Your task to perform on an android device: turn smart compose on in the gmail app Image 0: 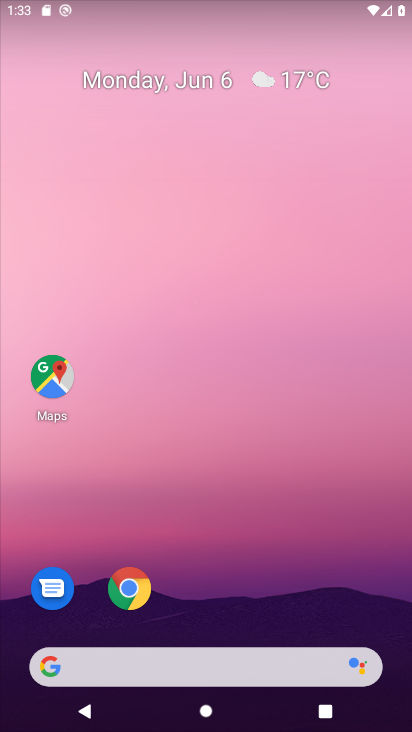
Step 0: drag from (223, 574) to (304, 3)
Your task to perform on an android device: turn smart compose on in the gmail app Image 1: 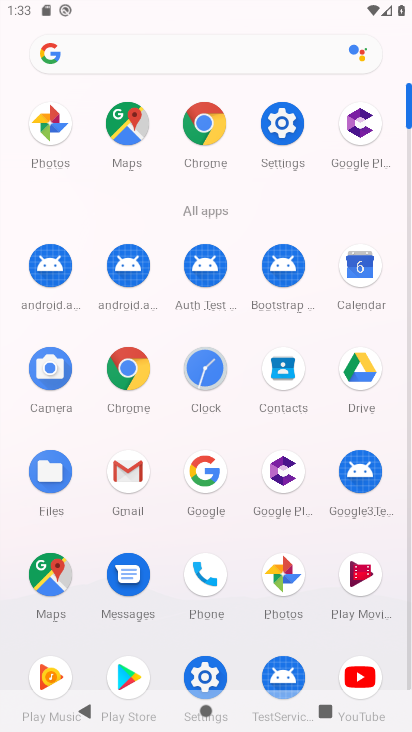
Step 1: click (127, 481)
Your task to perform on an android device: turn smart compose on in the gmail app Image 2: 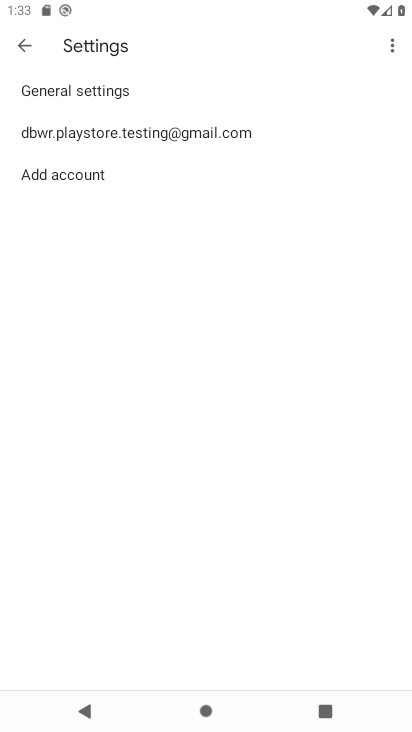
Step 2: click (170, 140)
Your task to perform on an android device: turn smart compose on in the gmail app Image 3: 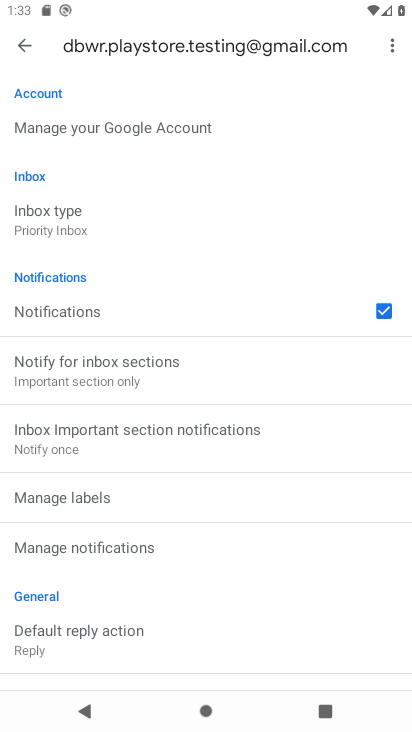
Step 3: task complete